Your task to perform on an android device: search for starred emails in the gmail app Image 0: 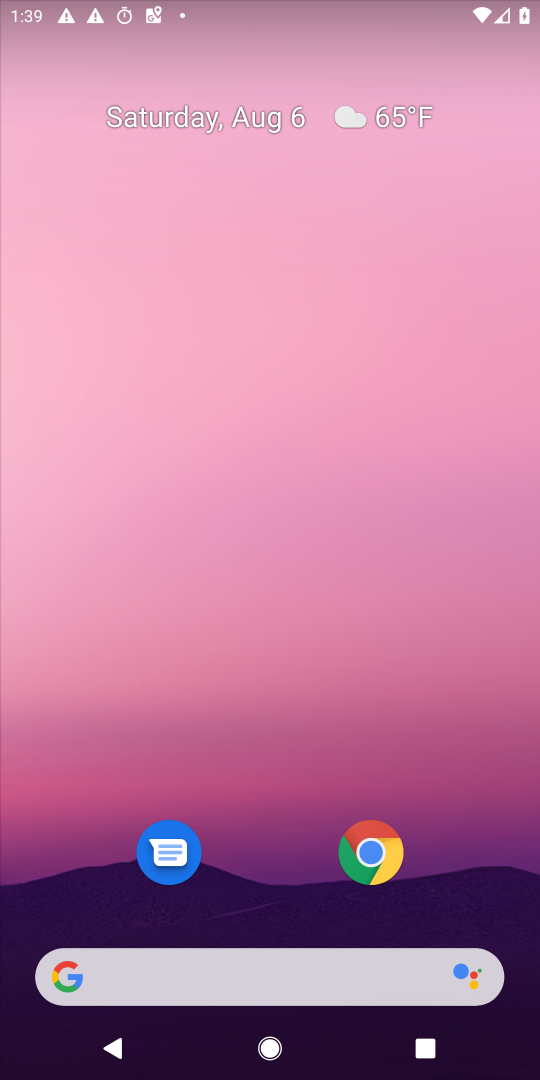
Step 0: press home button
Your task to perform on an android device: search for starred emails in the gmail app Image 1: 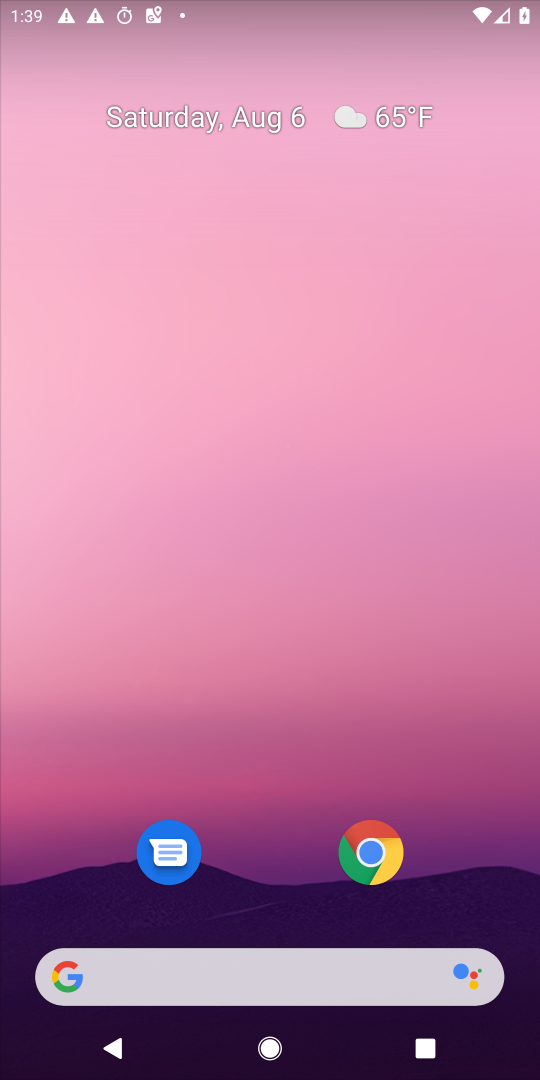
Step 1: drag from (380, 995) to (377, 533)
Your task to perform on an android device: search for starred emails in the gmail app Image 2: 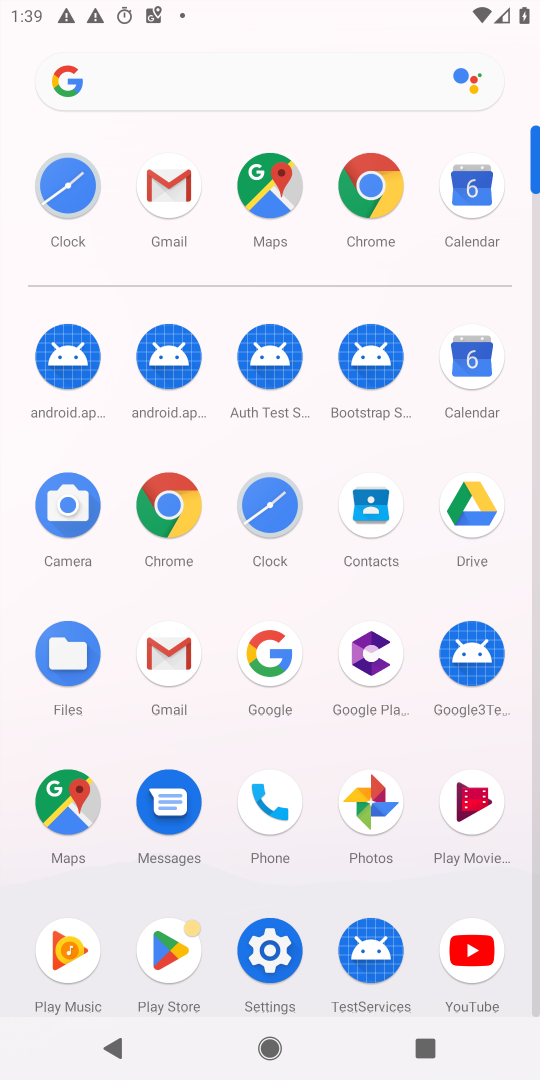
Step 2: click (166, 200)
Your task to perform on an android device: search for starred emails in the gmail app Image 3: 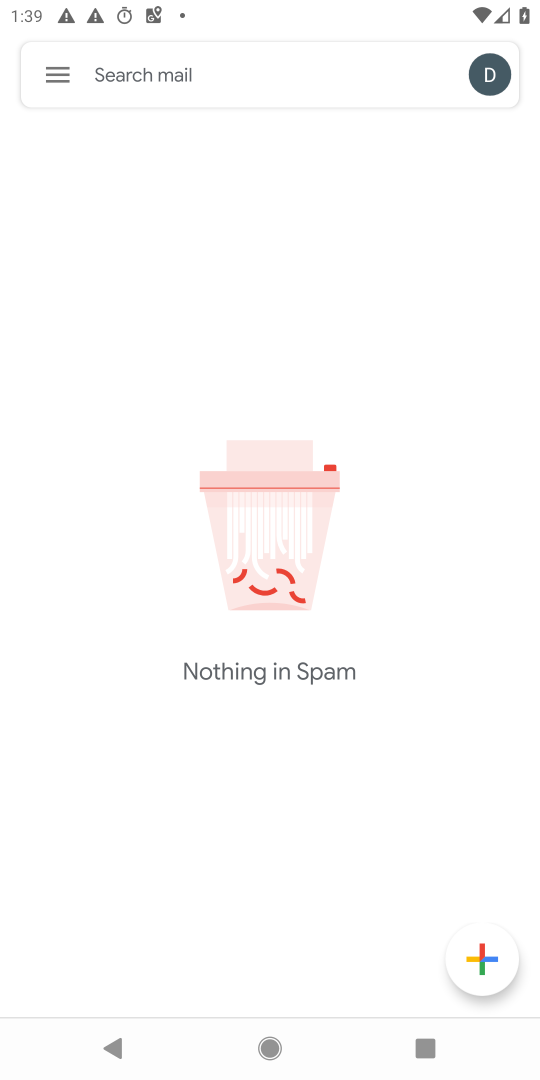
Step 3: click (53, 76)
Your task to perform on an android device: search for starred emails in the gmail app Image 4: 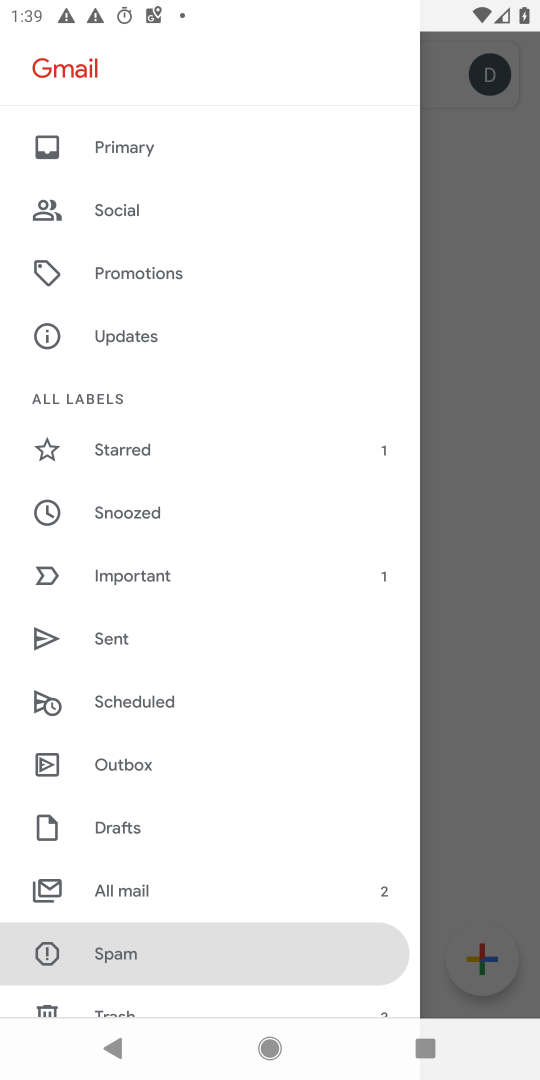
Step 4: click (126, 452)
Your task to perform on an android device: search for starred emails in the gmail app Image 5: 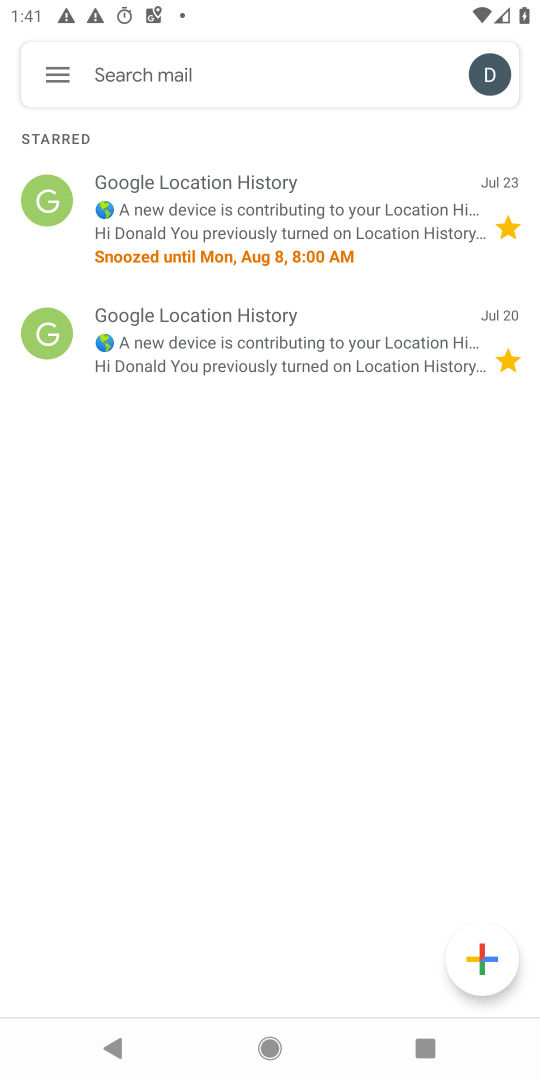
Step 5: task complete